Your task to perform on an android device: Go to internet settings Image 0: 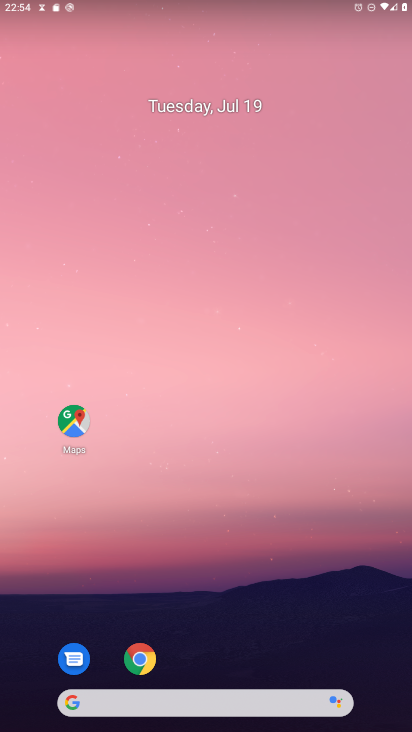
Step 0: drag from (273, 673) to (273, 295)
Your task to perform on an android device: Go to internet settings Image 1: 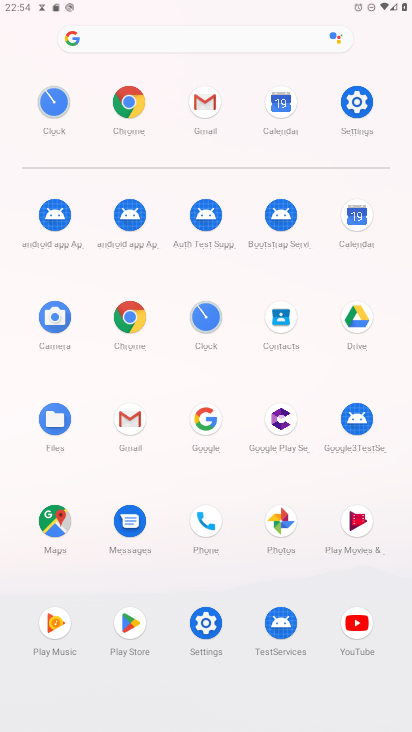
Step 1: click (349, 107)
Your task to perform on an android device: Go to internet settings Image 2: 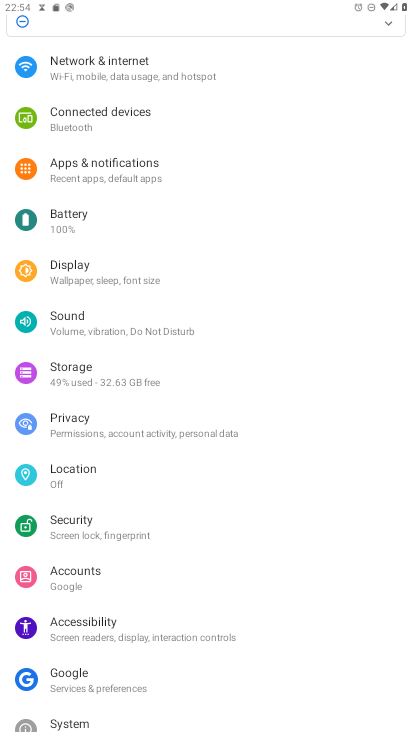
Step 2: click (137, 71)
Your task to perform on an android device: Go to internet settings Image 3: 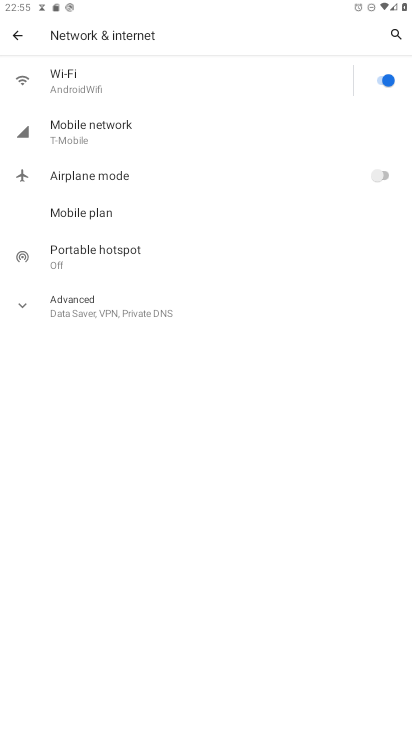
Step 3: task complete